Your task to perform on an android device: toggle javascript in the chrome app Image 0: 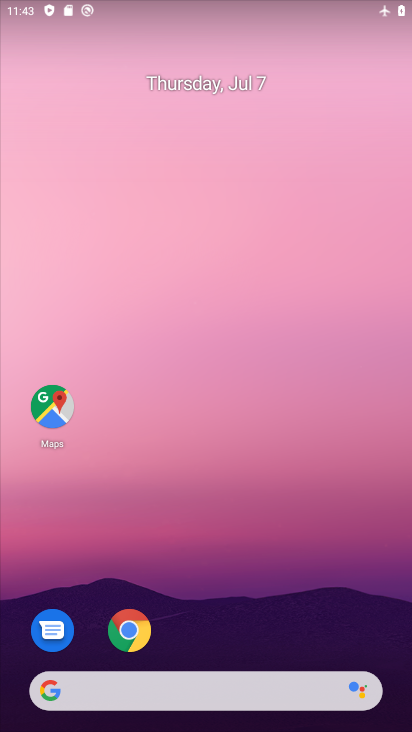
Step 0: drag from (389, 669) to (205, 60)
Your task to perform on an android device: toggle javascript in the chrome app Image 1: 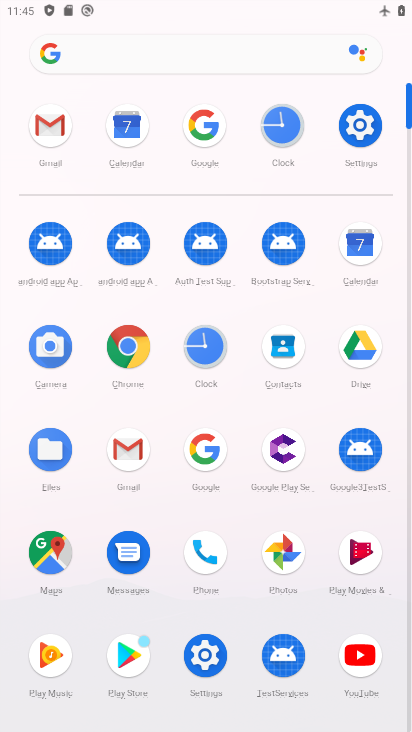
Step 1: click (130, 345)
Your task to perform on an android device: toggle javascript in the chrome app Image 2: 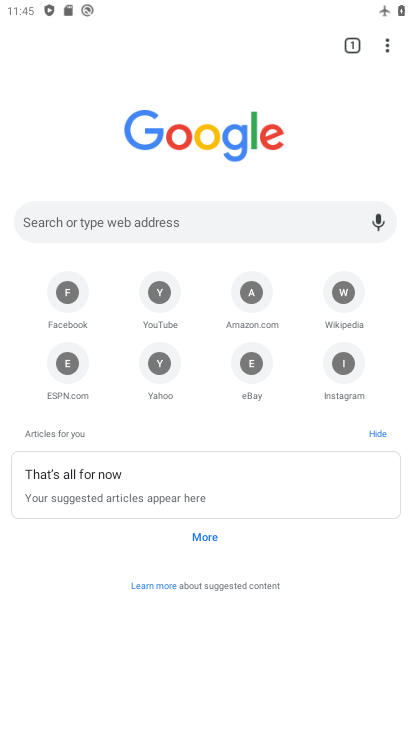
Step 2: click (384, 47)
Your task to perform on an android device: toggle javascript in the chrome app Image 3: 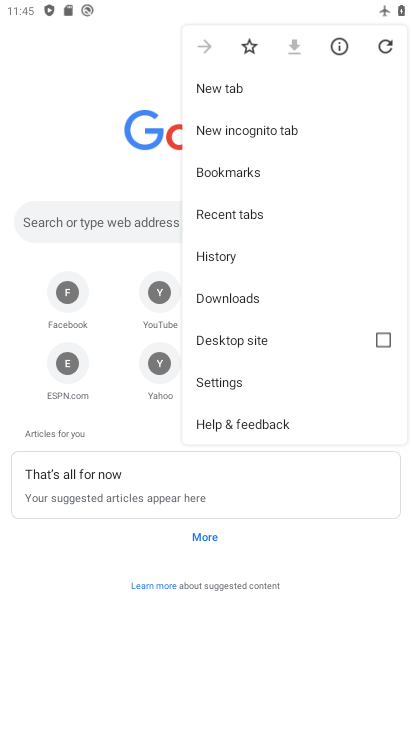
Step 3: click (249, 376)
Your task to perform on an android device: toggle javascript in the chrome app Image 4: 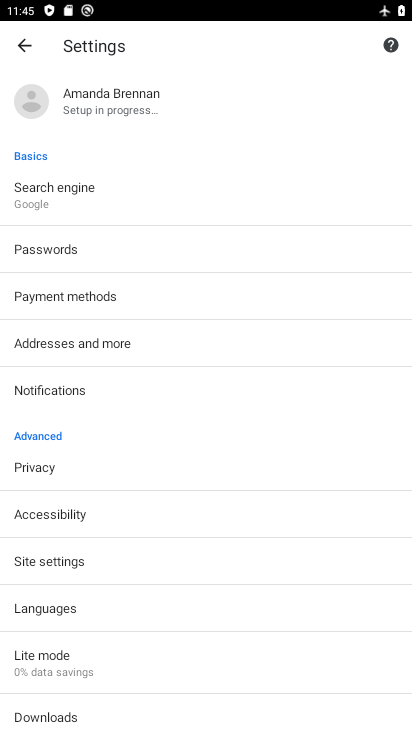
Step 4: click (93, 562)
Your task to perform on an android device: toggle javascript in the chrome app Image 5: 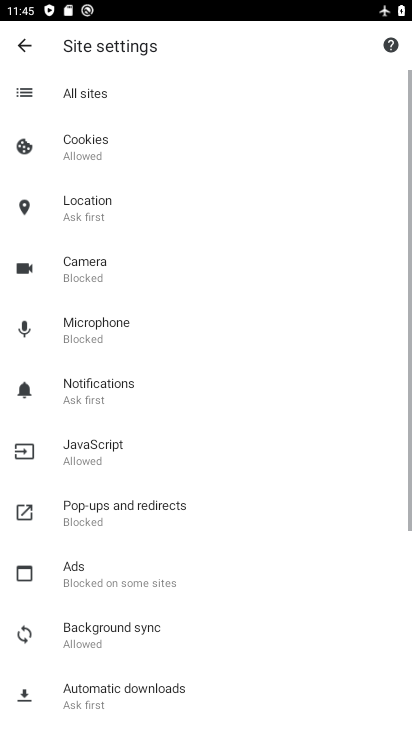
Step 5: click (80, 455)
Your task to perform on an android device: toggle javascript in the chrome app Image 6: 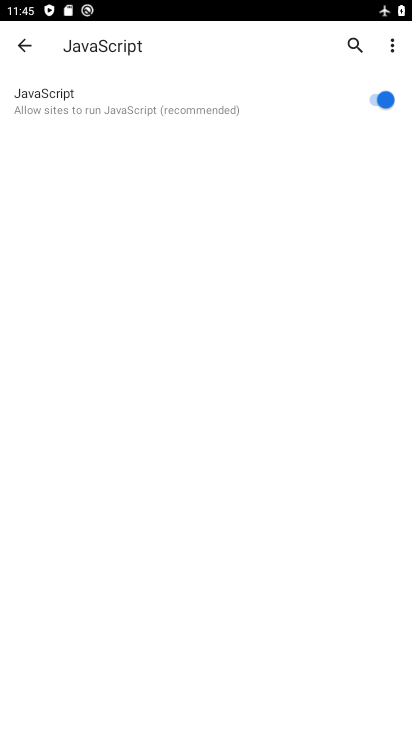
Step 6: click (366, 76)
Your task to perform on an android device: toggle javascript in the chrome app Image 7: 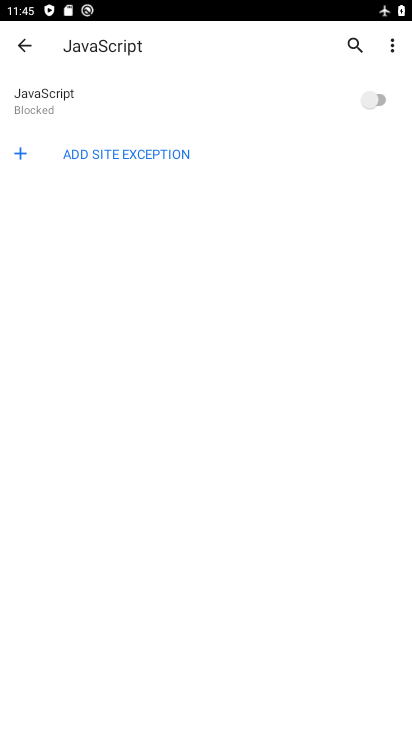
Step 7: task complete